Your task to perform on an android device: all mails in gmail Image 0: 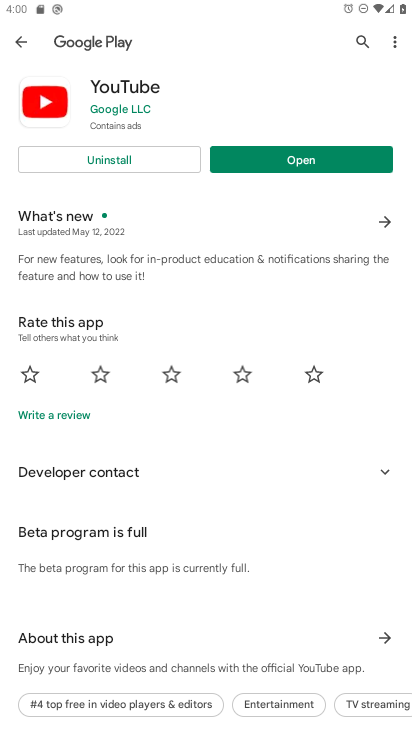
Step 0: press home button
Your task to perform on an android device: all mails in gmail Image 1: 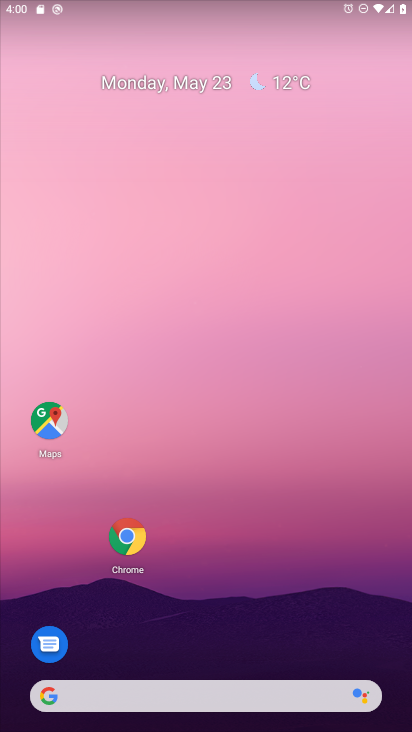
Step 1: drag from (236, 619) to (221, 147)
Your task to perform on an android device: all mails in gmail Image 2: 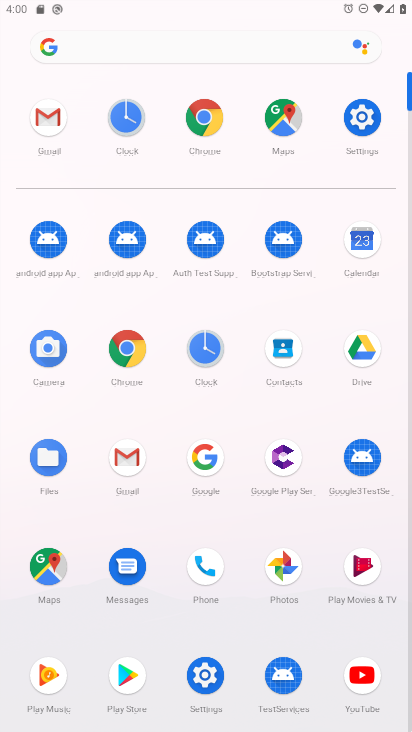
Step 2: click (49, 113)
Your task to perform on an android device: all mails in gmail Image 3: 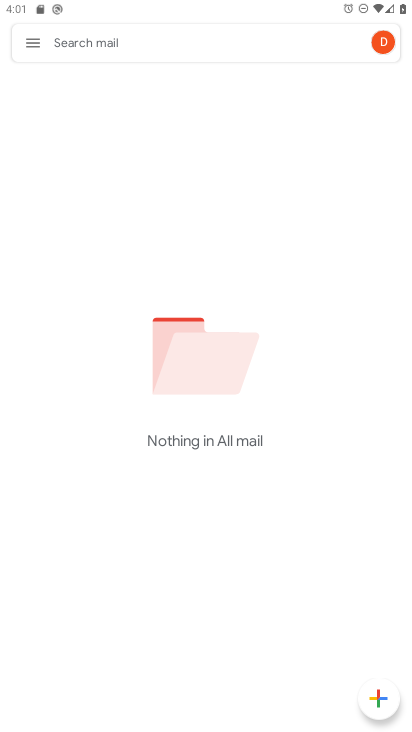
Step 3: task complete